Your task to perform on an android device: Go to sound settings Image 0: 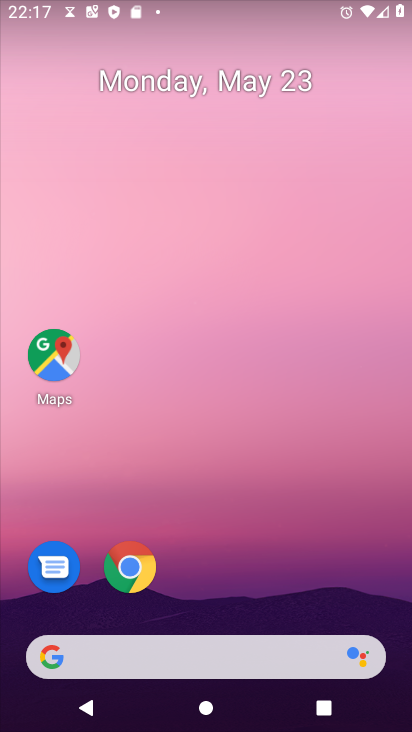
Step 0: drag from (321, 580) to (321, 357)
Your task to perform on an android device: Go to sound settings Image 1: 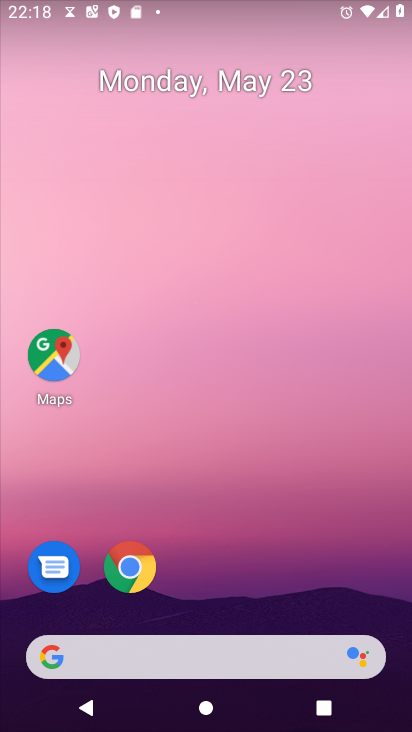
Step 1: drag from (204, 595) to (242, 242)
Your task to perform on an android device: Go to sound settings Image 2: 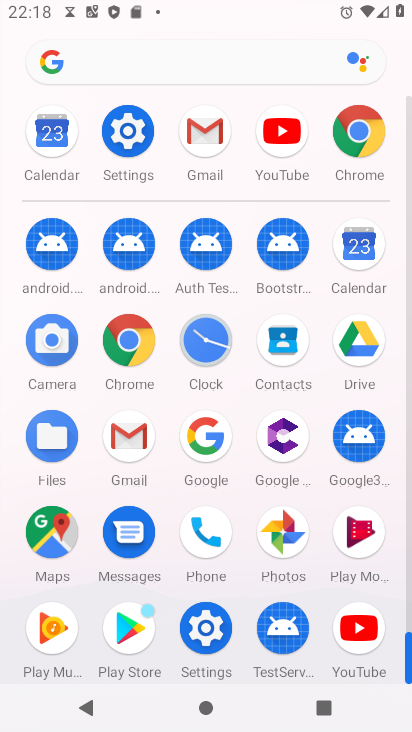
Step 2: click (123, 133)
Your task to perform on an android device: Go to sound settings Image 3: 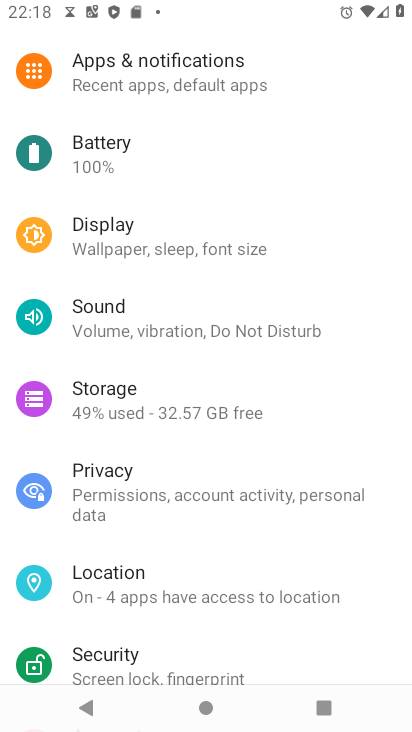
Step 3: click (160, 321)
Your task to perform on an android device: Go to sound settings Image 4: 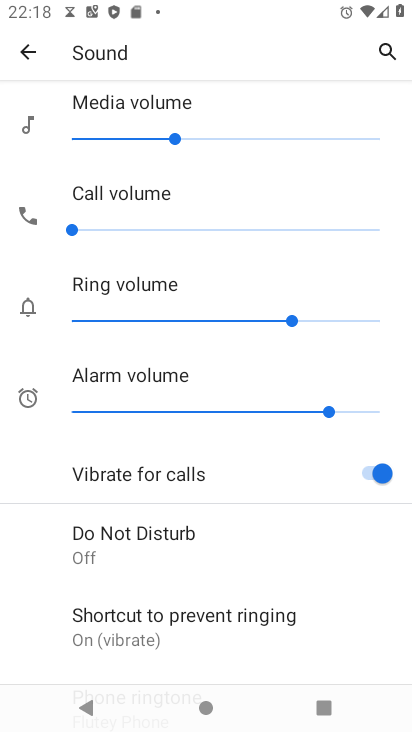
Step 4: task complete